Your task to perform on an android device: Show the shopping cart on walmart. Search for usb-c to usb-b on walmart, select the first entry, add it to the cart, then select checkout. Image 0: 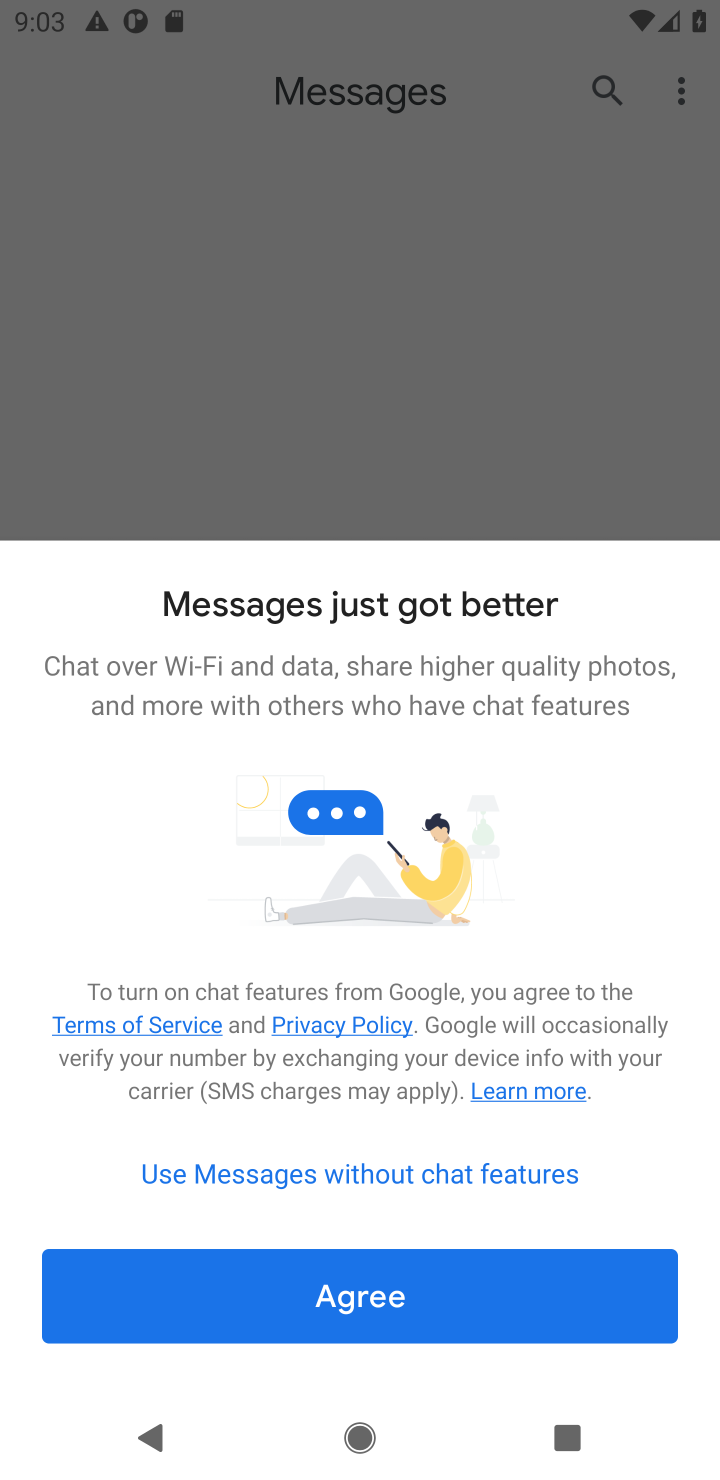
Step 0: press home button
Your task to perform on an android device: Show the shopping cart on walmart. Search for usb-c to usb-b on walmart, select the first entry, add it to the cart, then select checkout. Image 1: 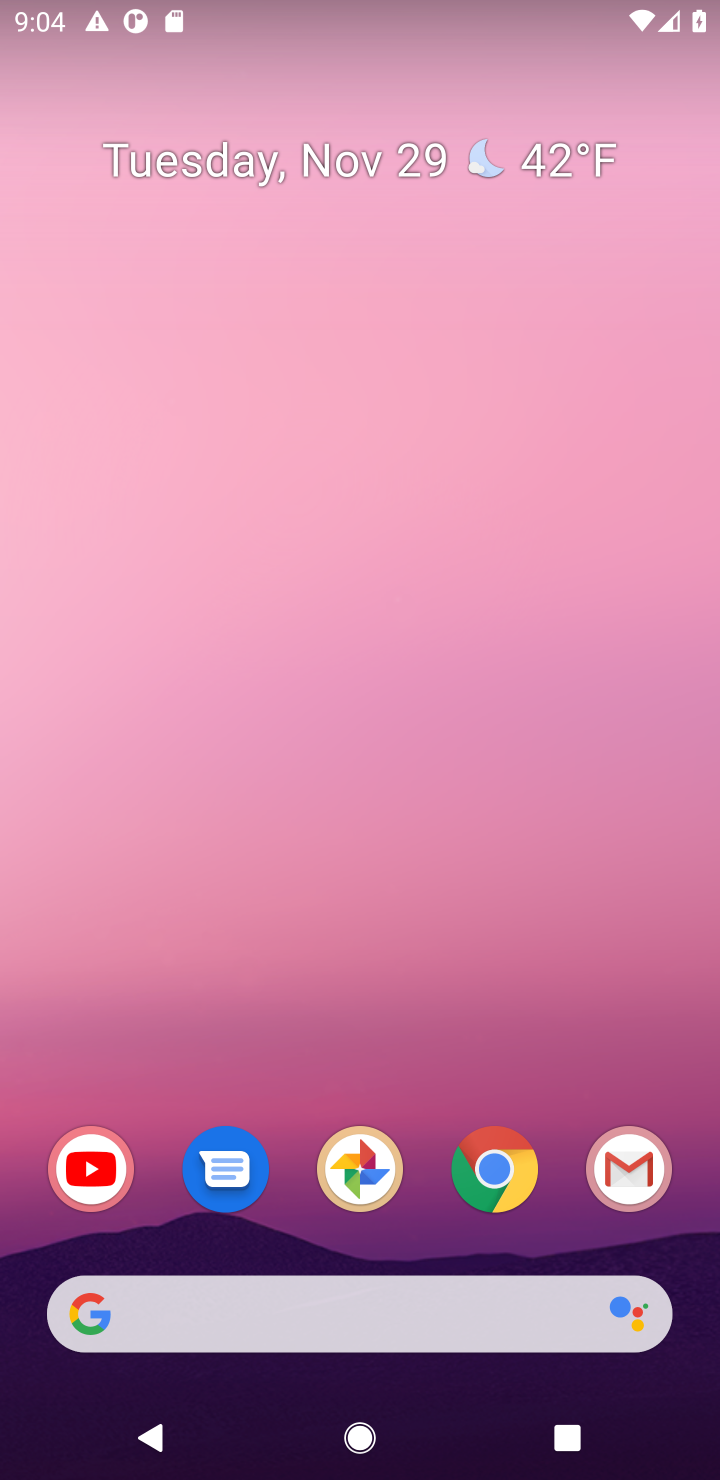
Step 1: click (219, 1311)
Your task to perform on an android device: Show the shopping cart on walmart. Search for usb-c to usb-b on walmart, select the first entry, add it to the cart, then select checkout. Image 2: 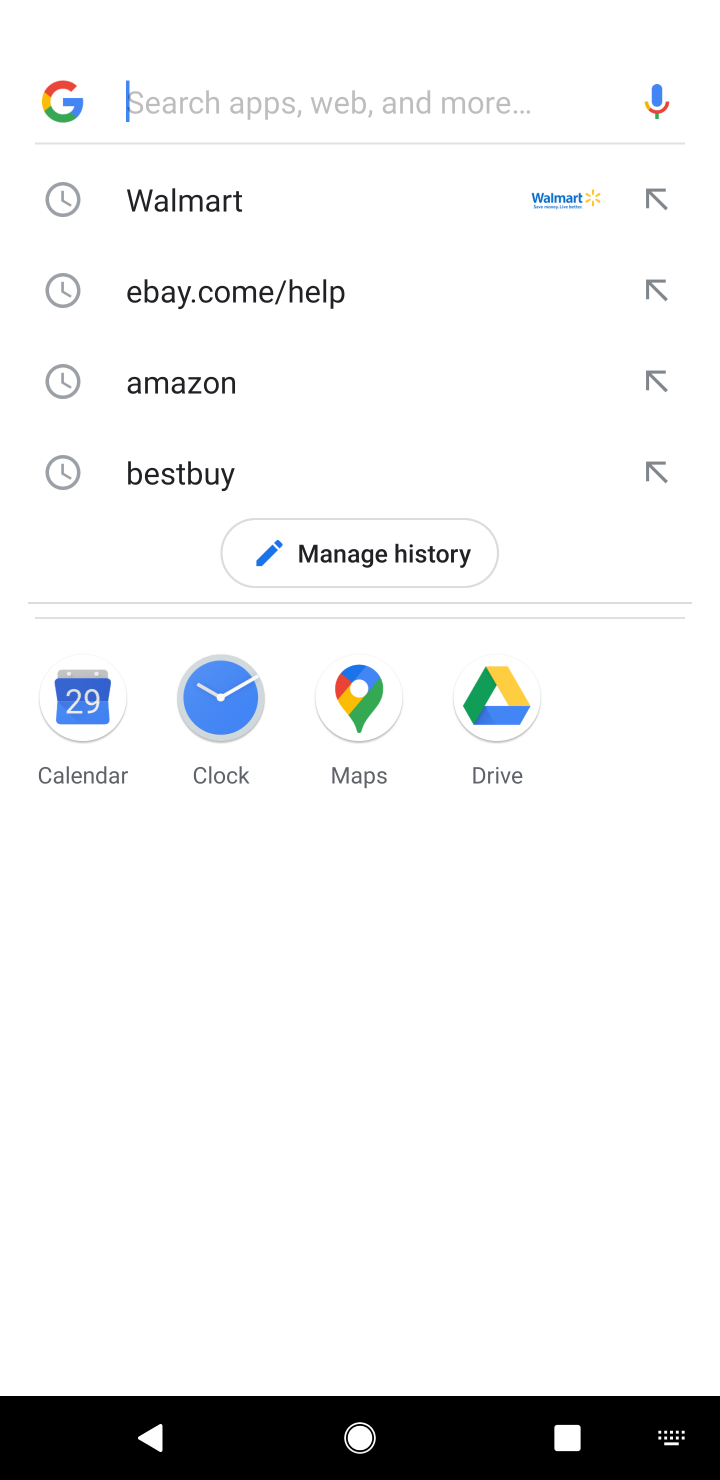
Step 2: type "wa"
Your task to perform on an android device: Show the shopping cart on walmart. Search for usb-c to usb-b on walmart, select the first entry, add it to the cart, then select checkout. Image 3: 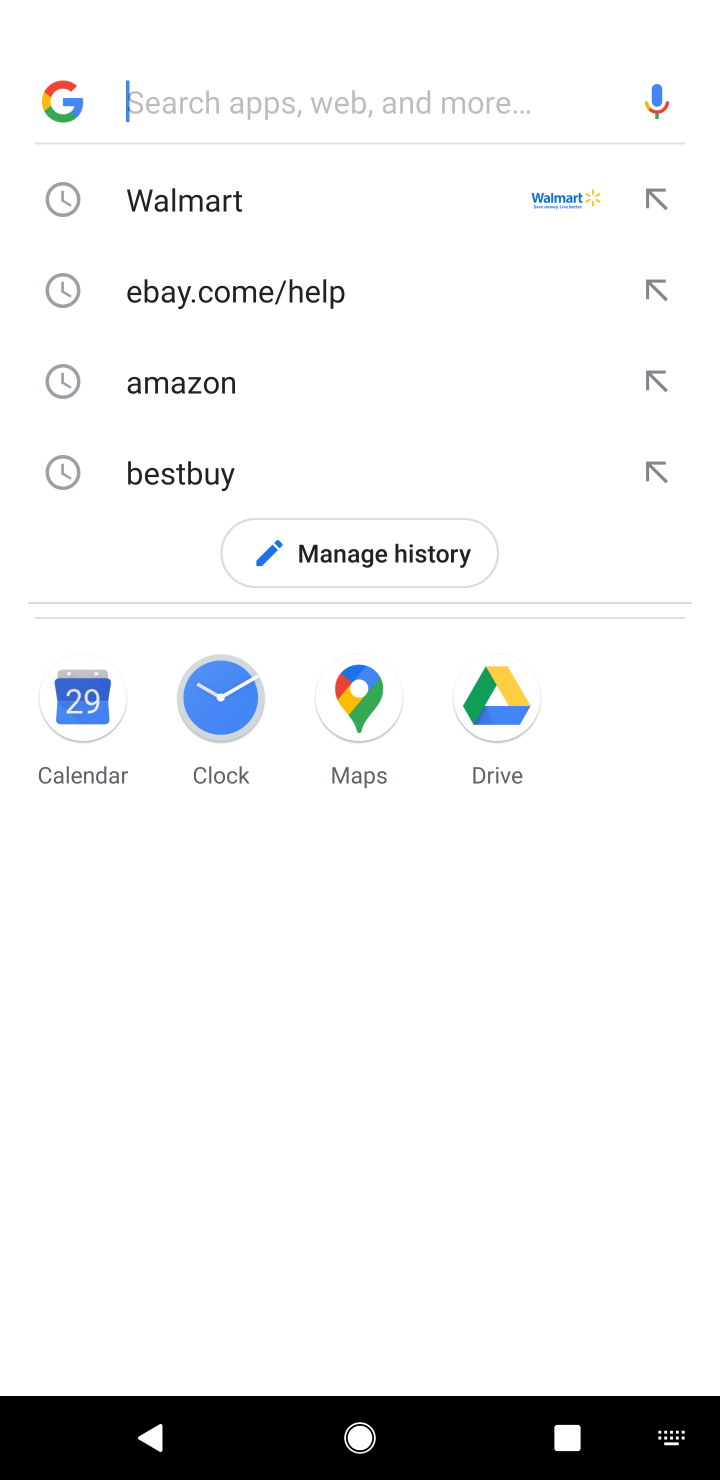
Step 3: click (183, 224)
Your task to perform on an android device: Show the shopping cart on walmart. Search for usb-c to usb-b on walmart, select the first entry, add it to the cart, then select checkout. Image 4: 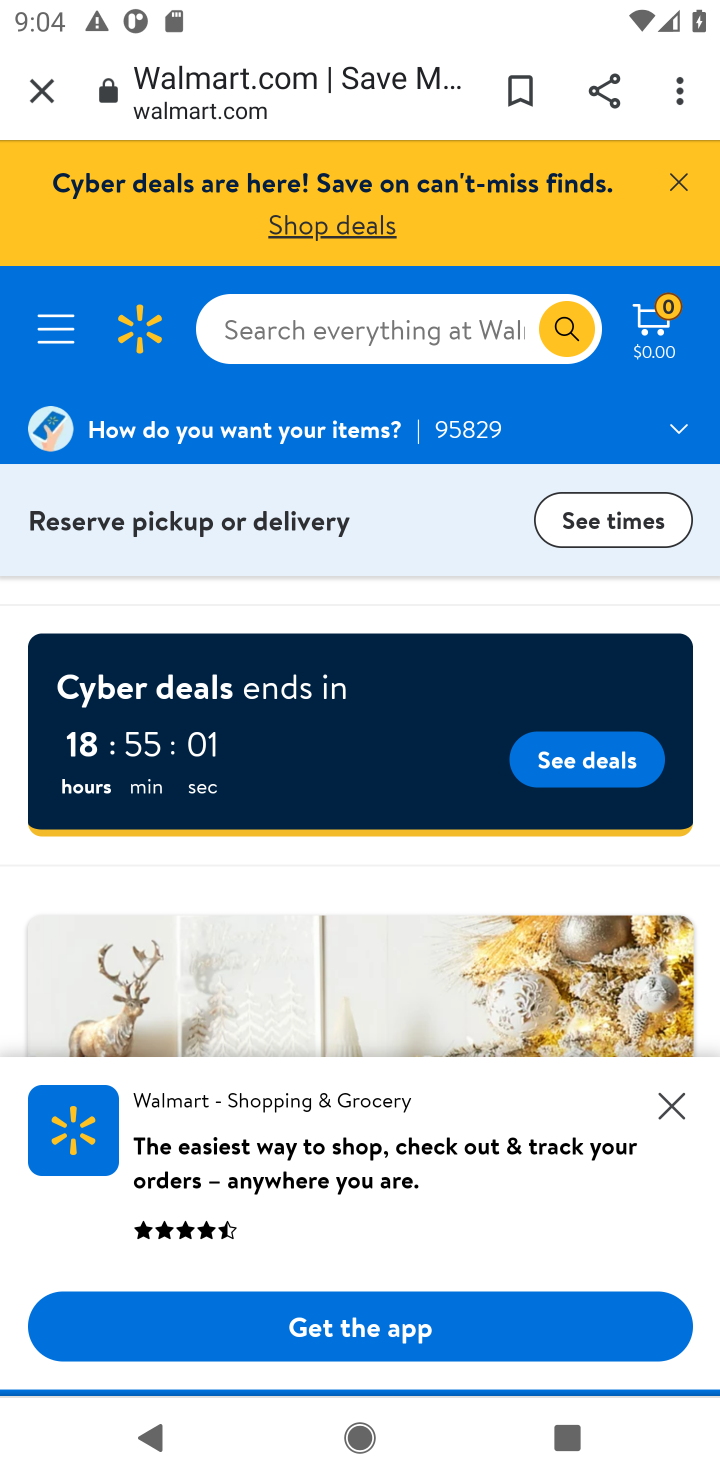
Step 4: click (697, 1120)
Your task to perform on an android device: Show the shopping cart on walmart. Search for usb-c to usb-b on walmart, select the first entry, add it to the cart, then select checkout. Image 5: 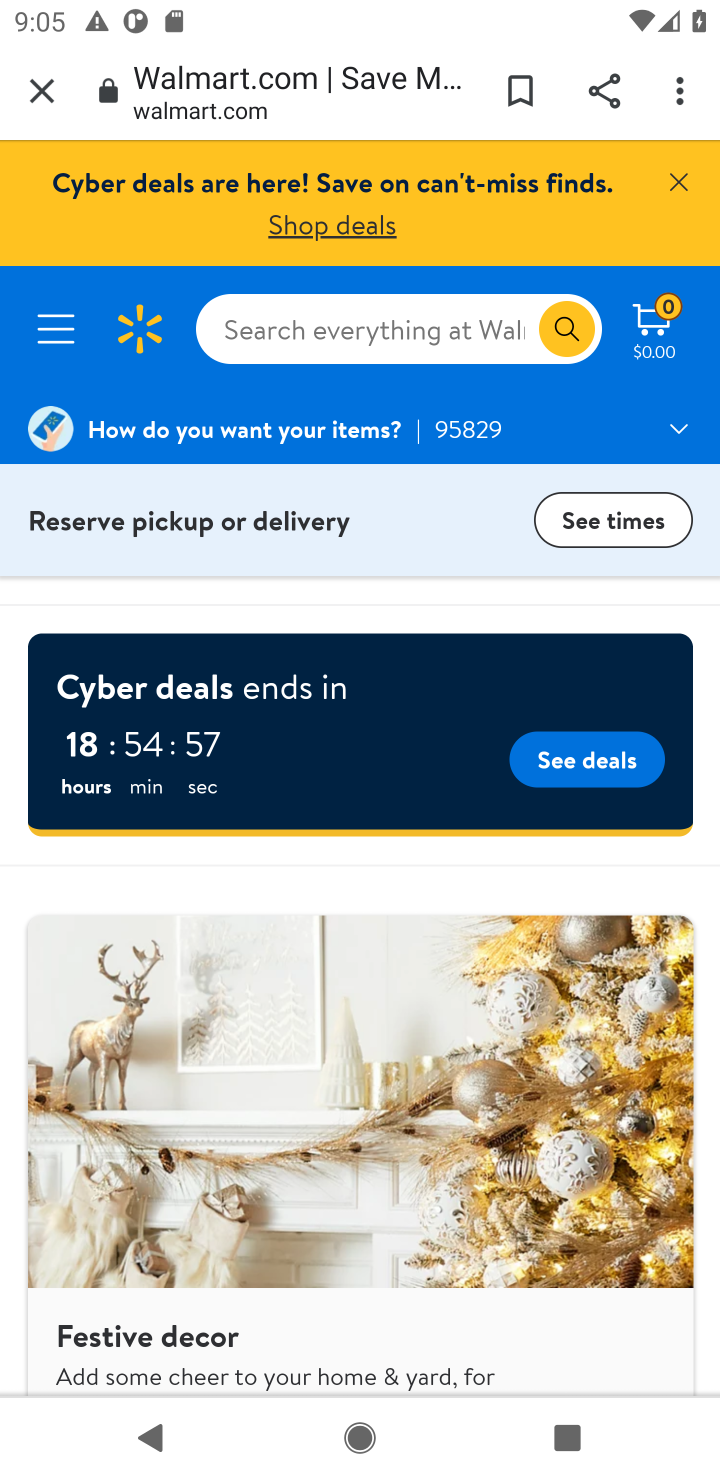
Step 5: click (255, 333)
Your task to perform on an android device: Show the shopping cart on walmart. Search for usb-c to usb-b on walmart, select the first entry, add it to the cart, then select checkout. Image 6: 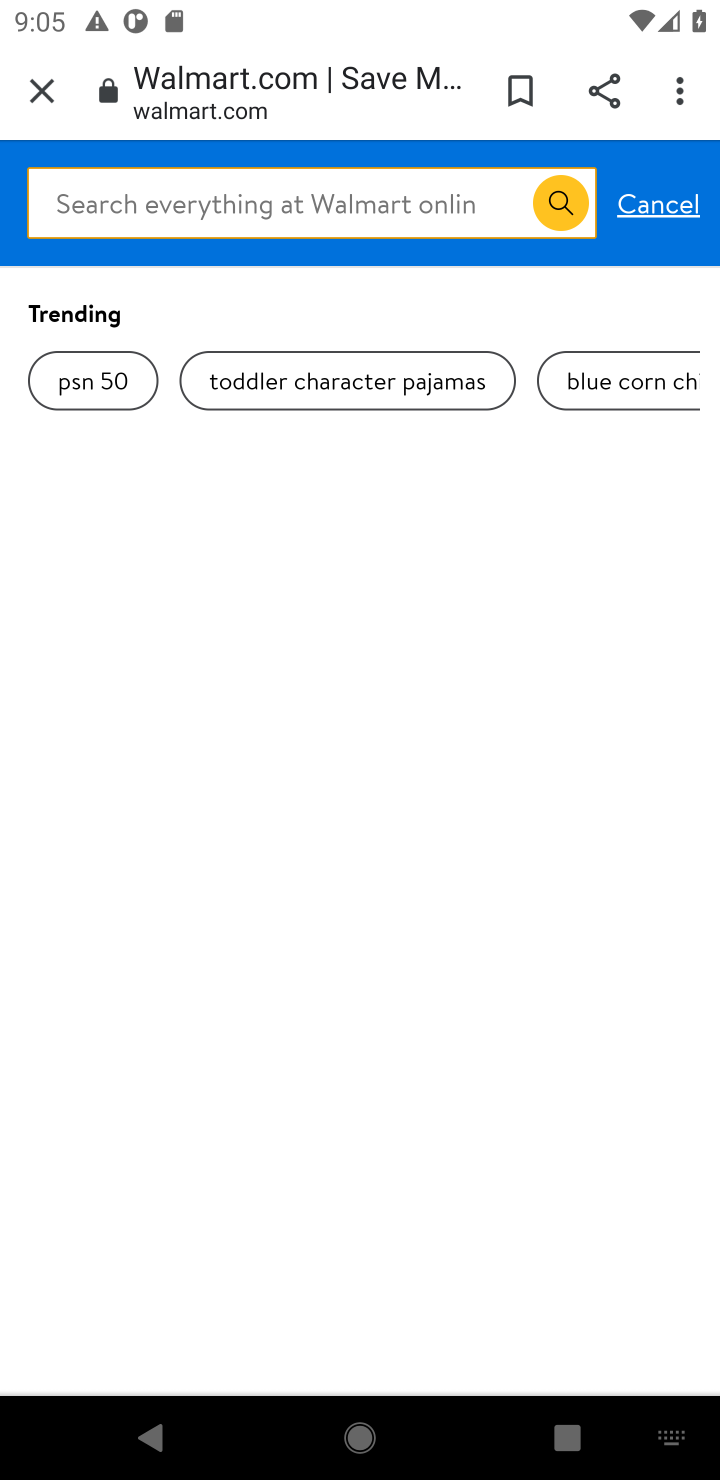
Step 6: type "usb-c to usb-b"
Your task to perform on an android device: Show the shopping cart on walmart. Search for usb-c to usb-b on walmart, select the first entry, add it to the cart, then select checkout. Image 7: 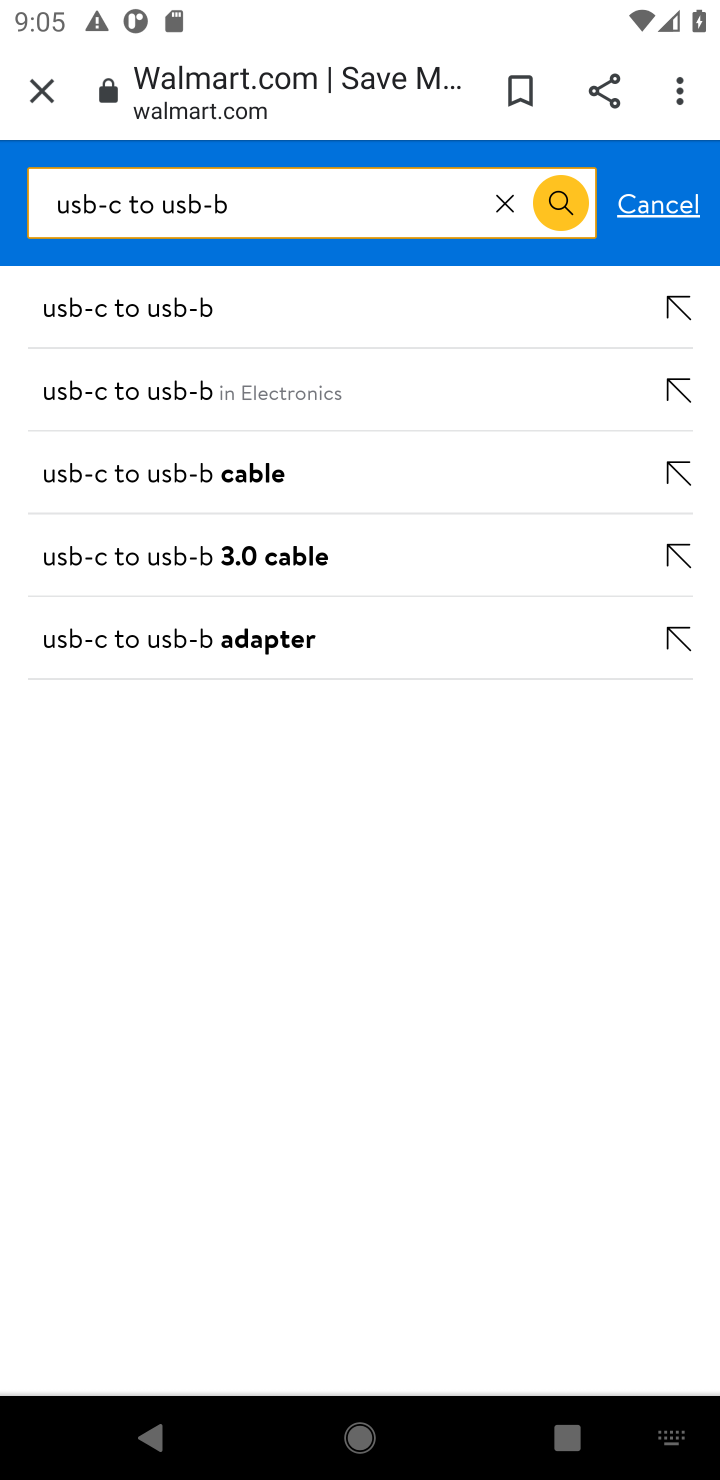
Step 7: click (146, 302)
Your task to perform on an android device: Show the shopping cart on walmart. Search for usb-c to usb-b on walmart, select the first entry, add it to the cart, then select checkout. Image 8: 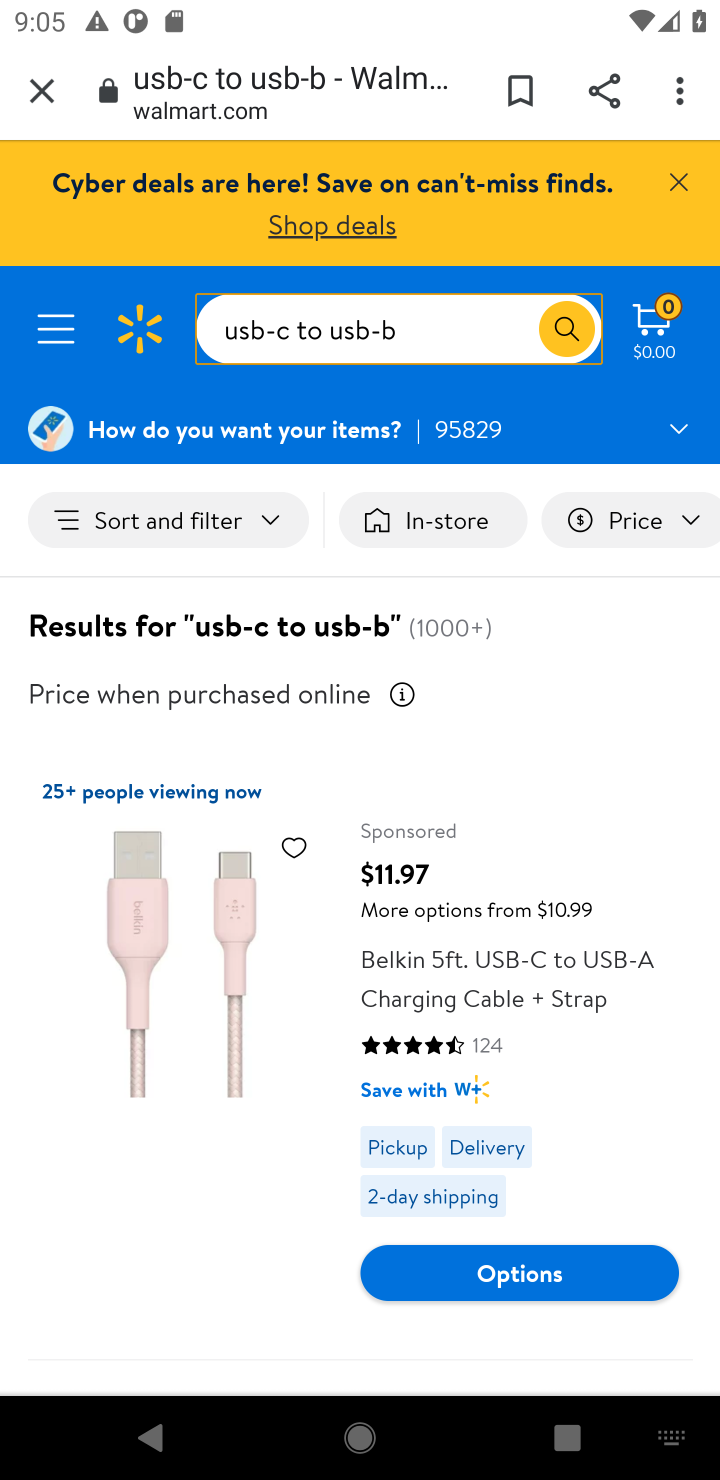
Step 8: click (493, 1273)
Your task to perform on an android device: Show the shopping cart on walmart. Search for usb-c to usb-b on walmart, select the first entry, add it to the cart, then select checkout. Image 9: 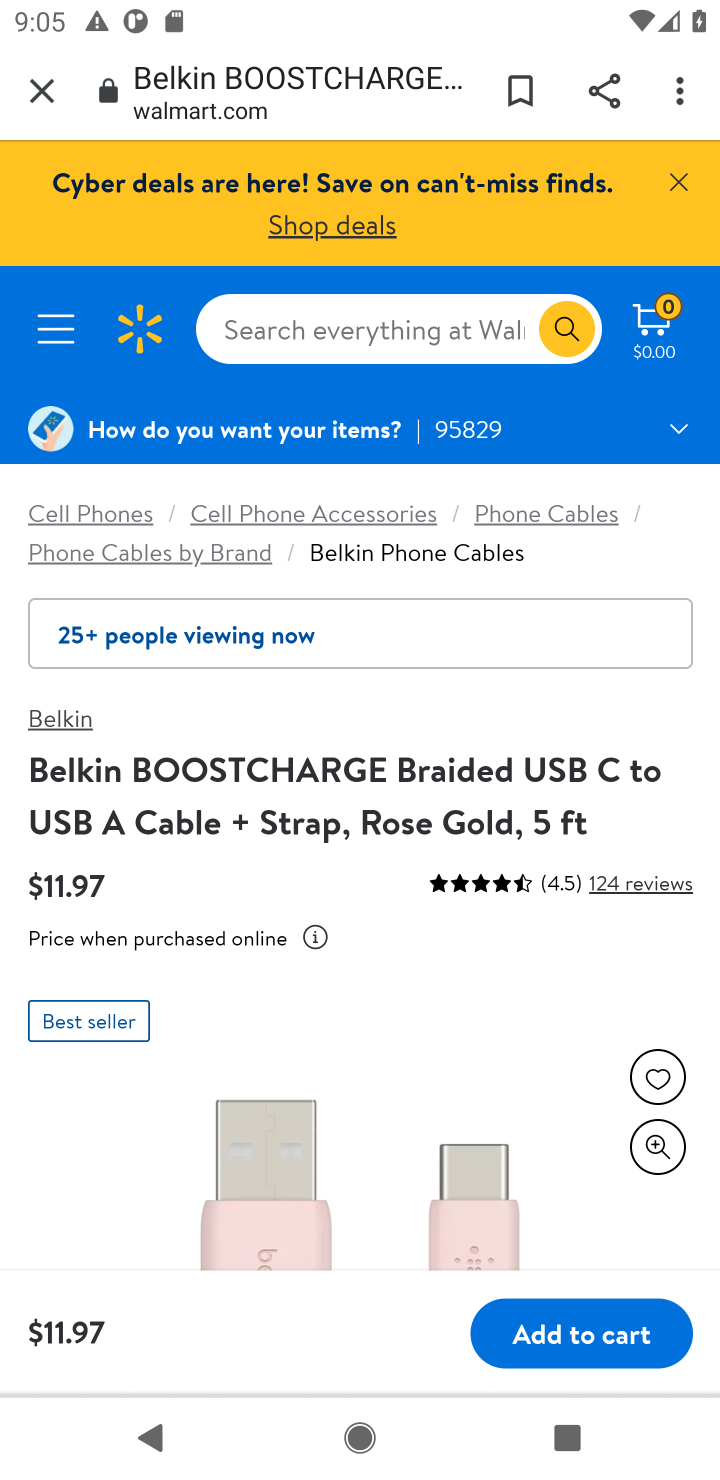
Step 9: click (556, 1371)
Your task to perform on an android device: Show the shopping cart on walmart. Search for usb-c to usb-b on walmart, select the first entry, add it to the cart, then select checkout. Image 10: 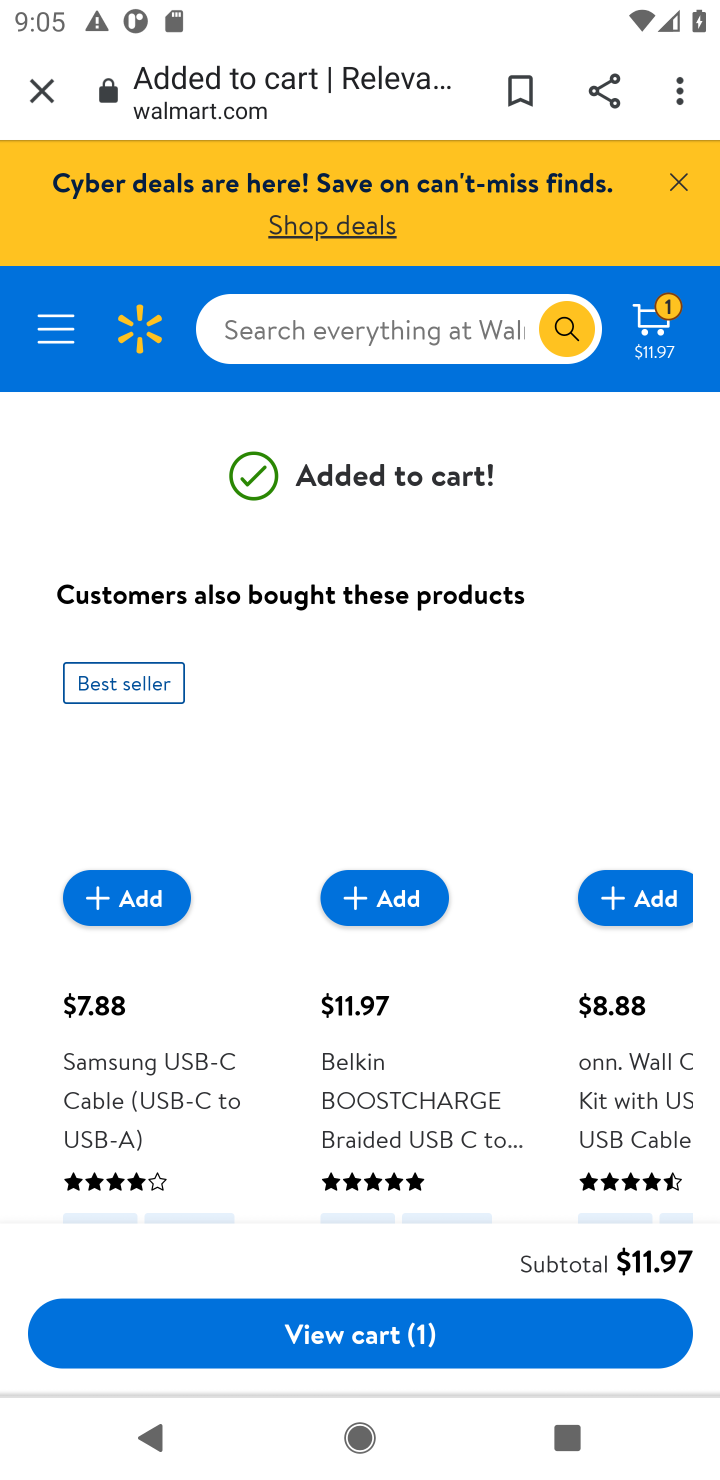
Step 10: task complete